Your task to perform on an android device: What's the weather? Image 0: 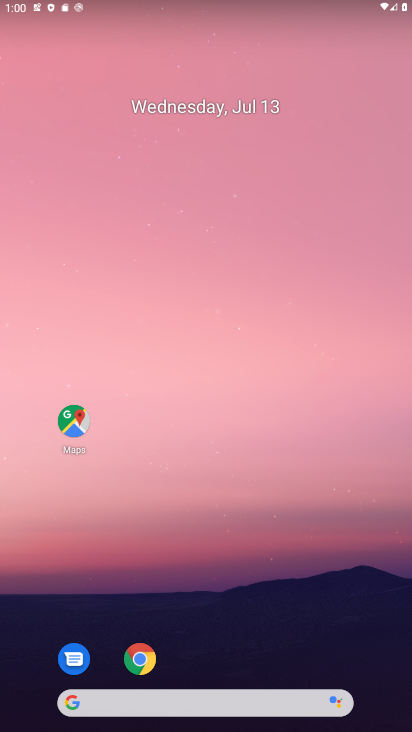
Step 0: drag from (216, 579) to (228, 122)
Your task to perform on an android device: What's the weather? Image 1: 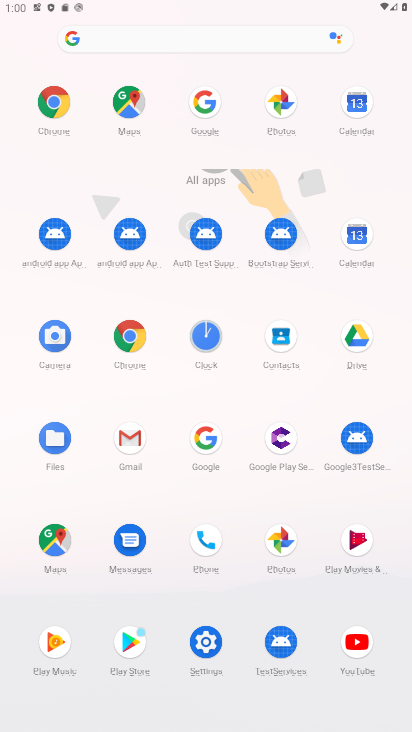
Step 1: click (53, 103)
Your task to perform on an android device: What's the weather? Image 2: 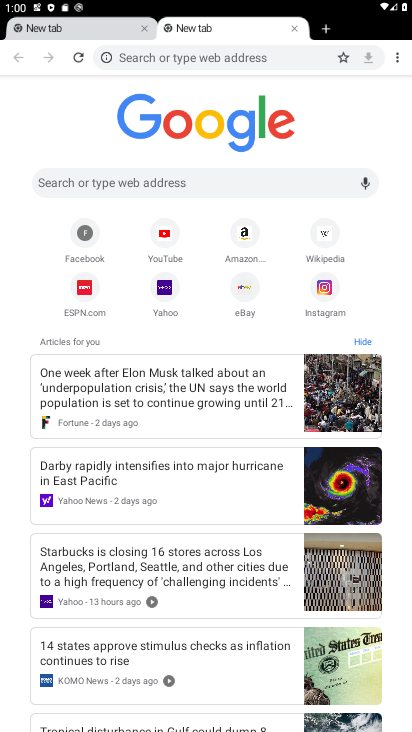
Step 2: click (194, 181)
Your task to perform on an android device: What's the weather? Image 3: 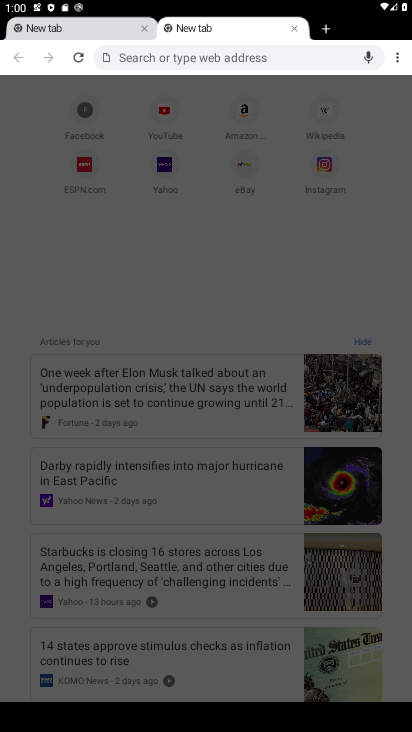
Step 3: type "whats the weather"
Your task to perform on an android device: What's the weather? Image 4: 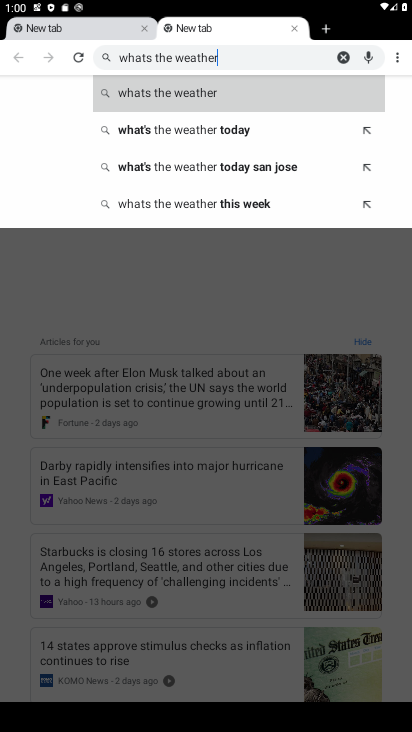
Step 4: click (207, 102)
Your task to perform on an android device: What's the weather? Image 5: 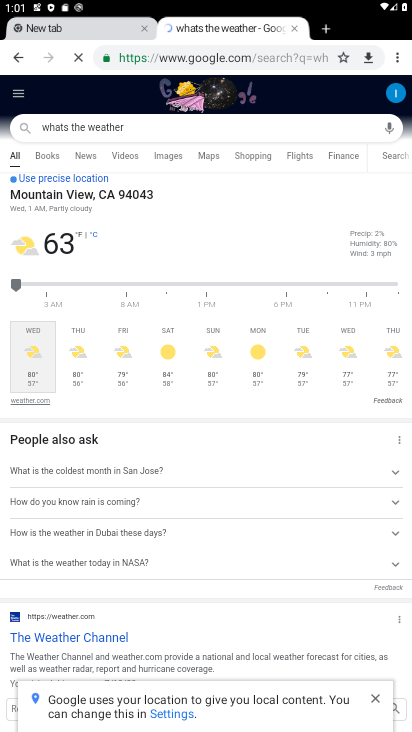
Step 5: task complete